Your task to perform on an android device: Open Google Chrome and open the bookmarks view Image 0: 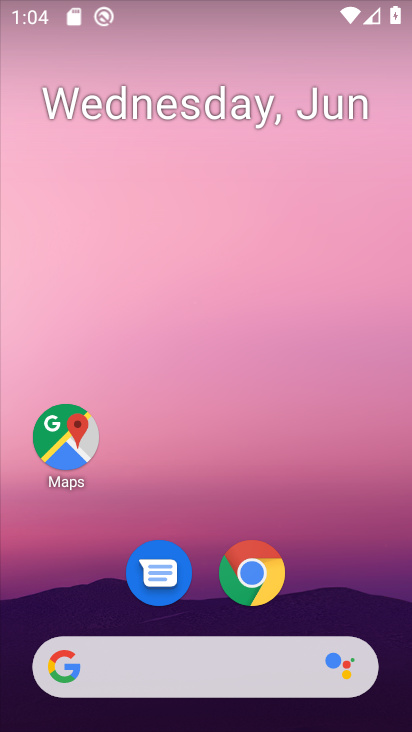
Step 0: click (253, 576)
Your task to perform on an android device: Open Google Chrome and open the bookmarks view Image 1: 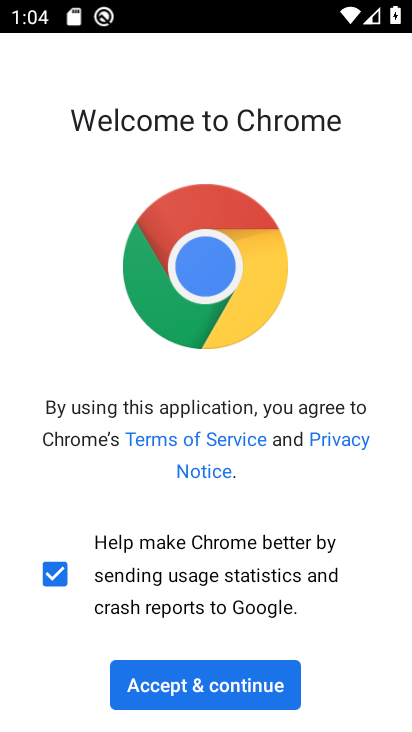
Step 1: click (219, 677)
Your task to perform on an android device: Open Google Chrome and open the bookmarks view Image 2: 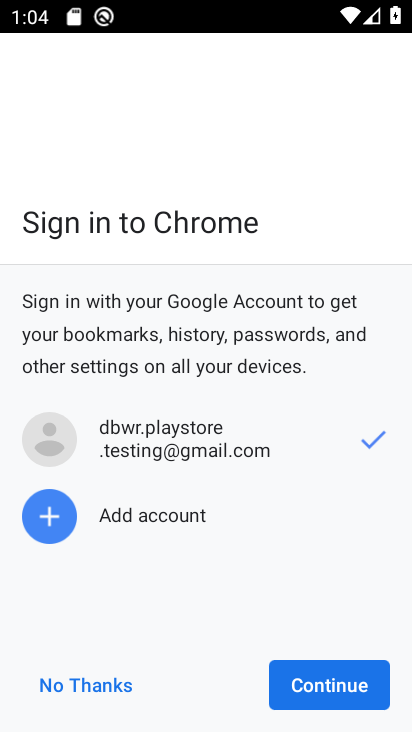
Step 2: click (336, 686)
Your task to perform on an android device: Open Google Chrome and open the bookmarks view Image 3: 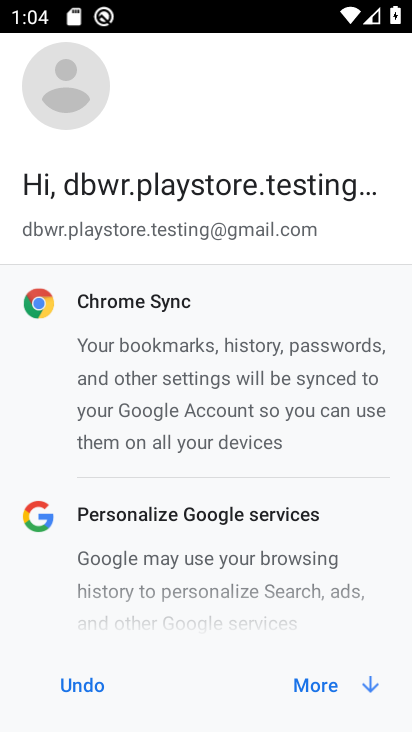
Step 3: click (331, 698)
Your task to perform on an android device: Open Google Chrome and open the bookmarks view Image 4: 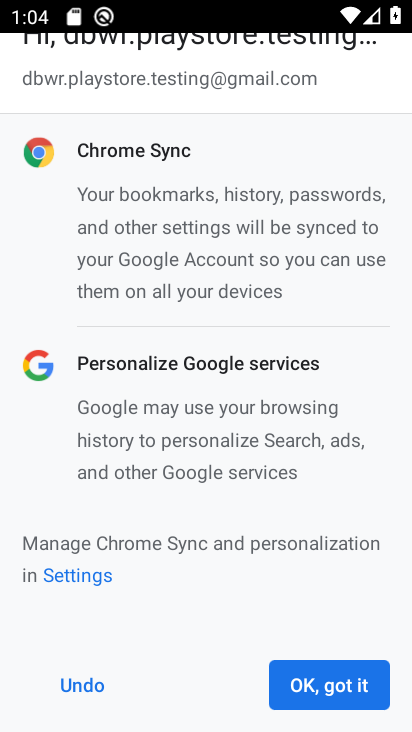
Step 4: click (308, 689)
Your task to perform on an android device: Open Google Chrome and open the bookmarks view Image 5: 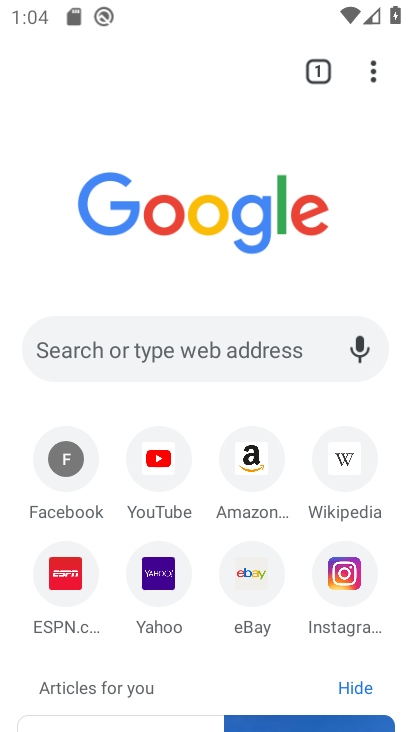
Step 5: task complete